Your task to perform on an android device: Show me recent news Image 0: 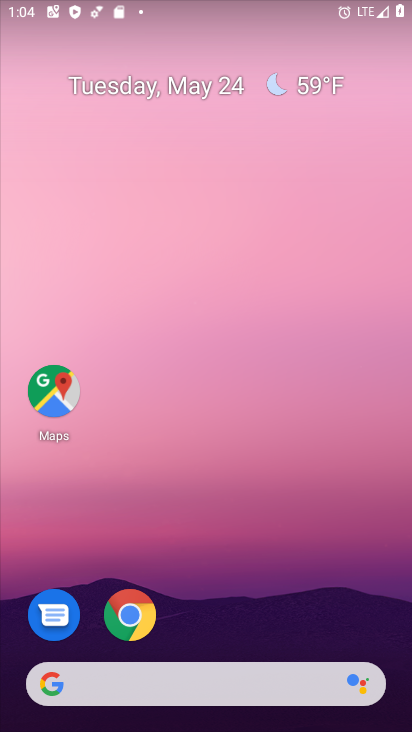
Step 0: drag from (329, 590) to (275, 37)
Your task to perform on an android device: Show me recent news Image 1: 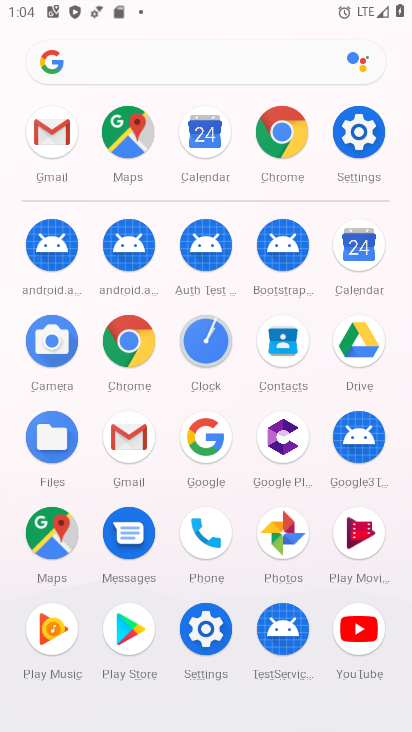
Step 1: drag from (23, 631) to (15, 226)
Your task to perform on an android device: Show me recent news Image 2: 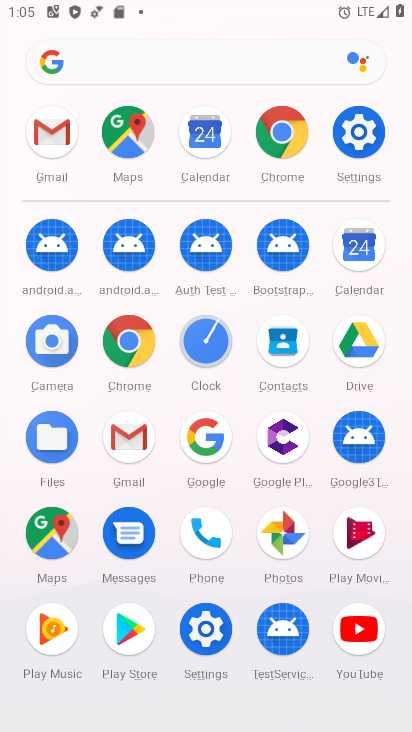
Step 2: click (132, 335)
Your task to perform on an android device: Show me recent news Image 3: 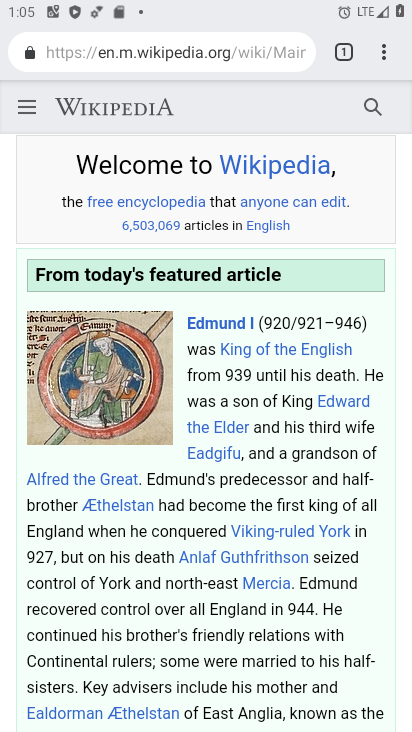
Step 3: click (166, 44)
Your task to perform on an android device: Show me recent news Image 4: 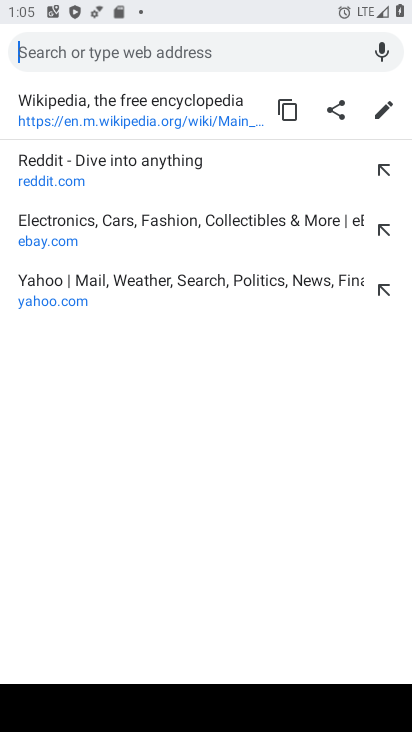
Step 4: type "Show me recent news"
Your task to perform on an android device: Show me recent news Image 5: 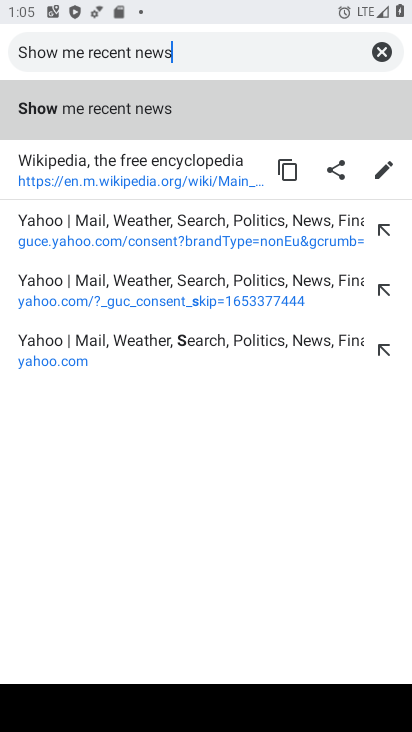
Step 5: type ""
Your task to perform on an android device: Show me recent news Image 6: 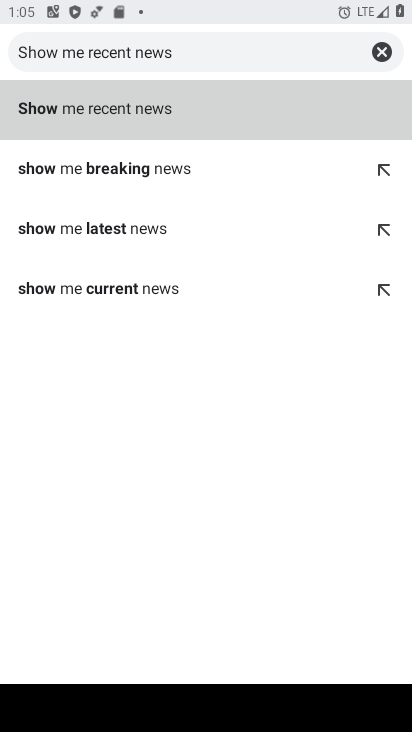
Step 6: click (100, 98)
Your task to perform on an android device: Show me recent news Image 7: 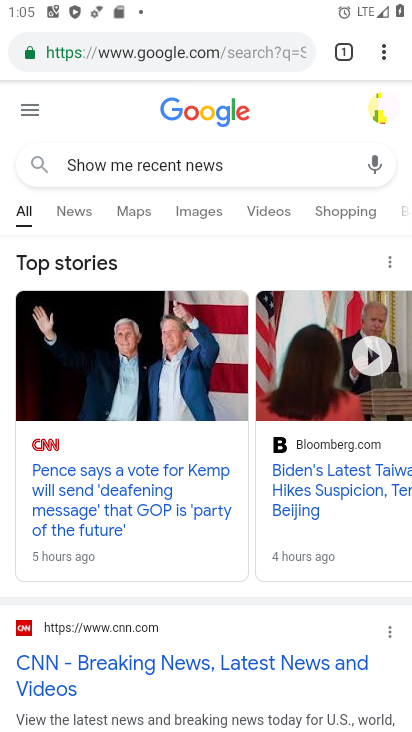
Step 7: drag from (376, 353) to (49, 387)
Your task to perform on an android device: Show me recent news Image 8: 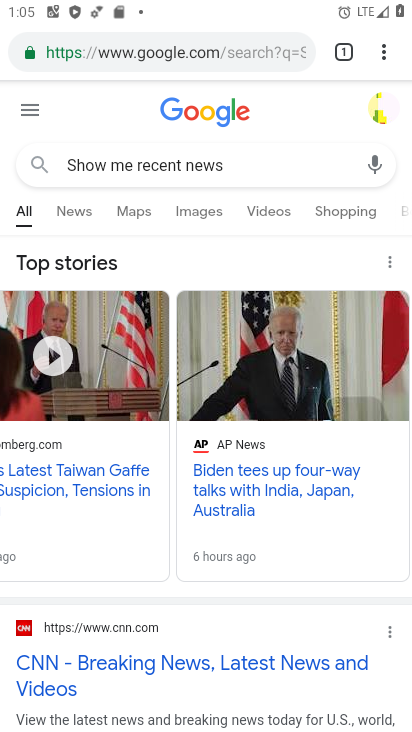
Step 8: drag from (260, 361) to (43, 386)
Your task to perform on an android device: Show me recent news Image 9: 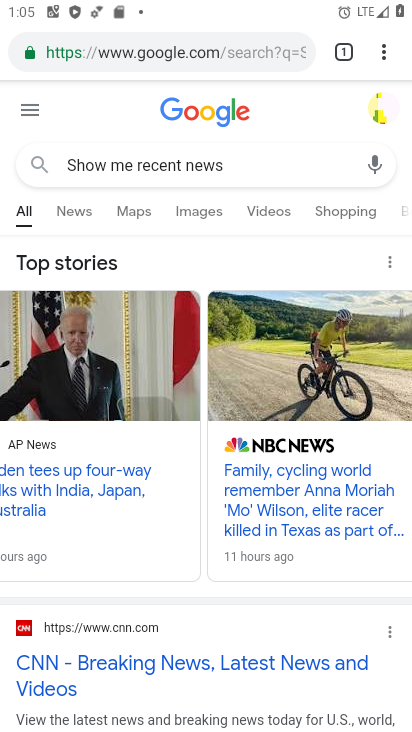
Step 9: drag from (348, 346) to (9, 397)
Your task to perform on an android device: Show me recent news Image 10: 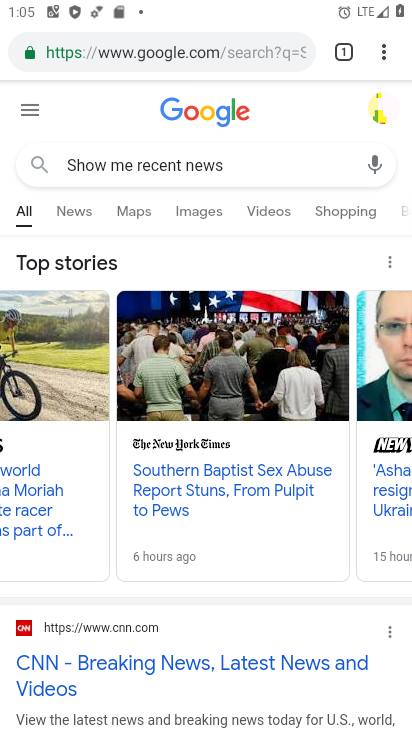
Step 10: drag from (322, 335) to (9, 382)
Your task to perform on an android device: Show me recent news Image 11: 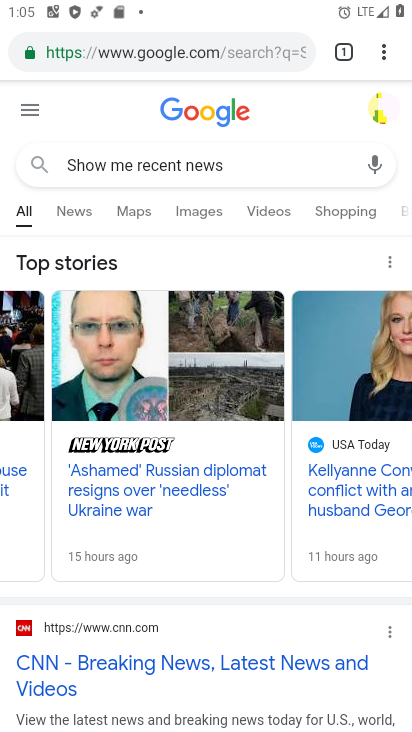
Step 11: drag from (297, 343) to (9, 386)
Your task to perform on an android device: Show me recent news Image 12: 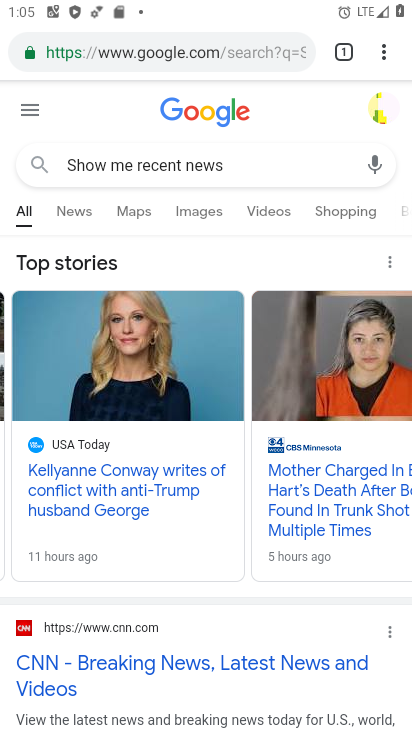
Step 12: drag from (390, 339) to (33, 403)
Your task to perform on an android device: Show me recent news Image 13: 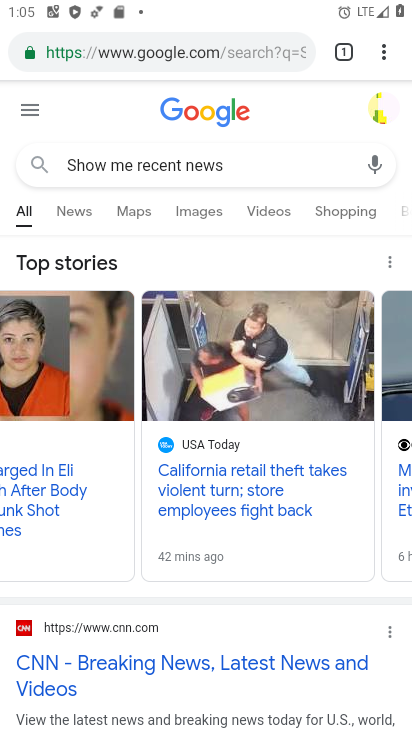
Step 13: drag from (321, 370) to (79, 388)
Your task to perform on an android device: Show me recent news Image 14: 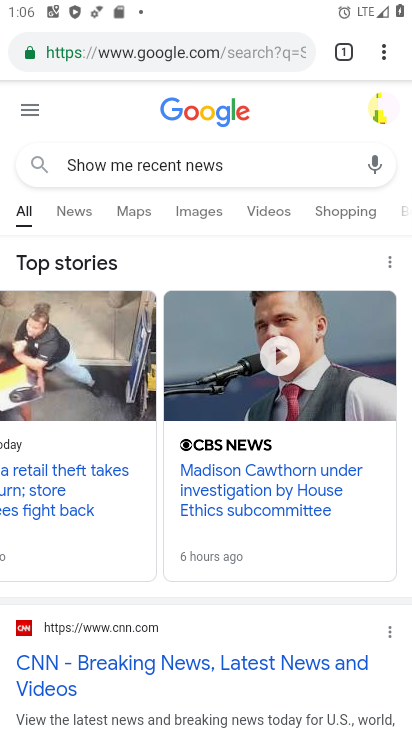
Step 14: drag from (226, 404) to (157, 409)
Your task to perform on an android device: Show me recent news Image 15: 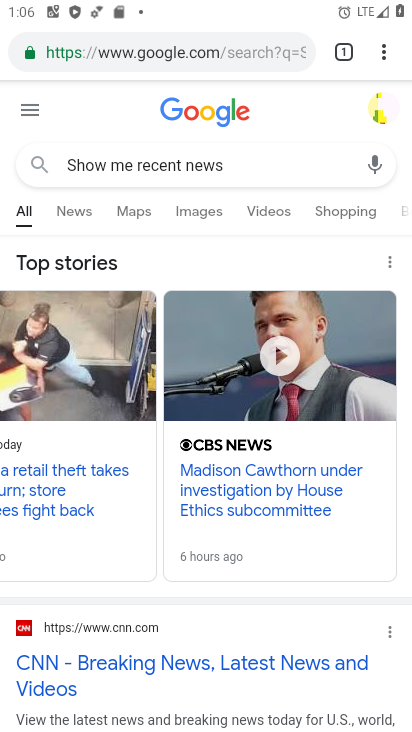
Step 15: click (78, 211)
Your task to perform on an android device: Show me recent news Image 16: 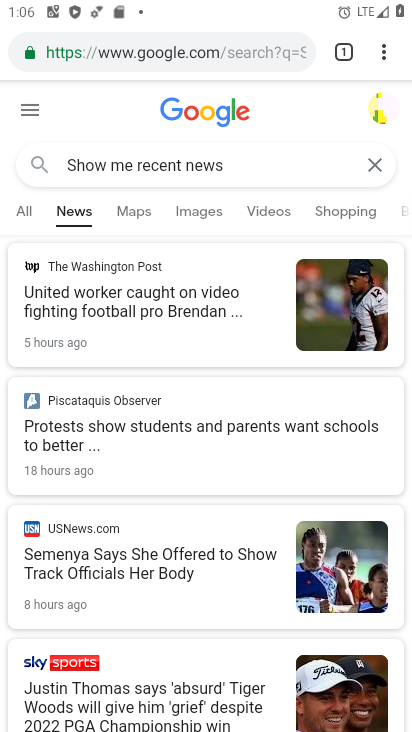
Step 16: task complete